Your task to perform on an android device: Go to Google Image 0: 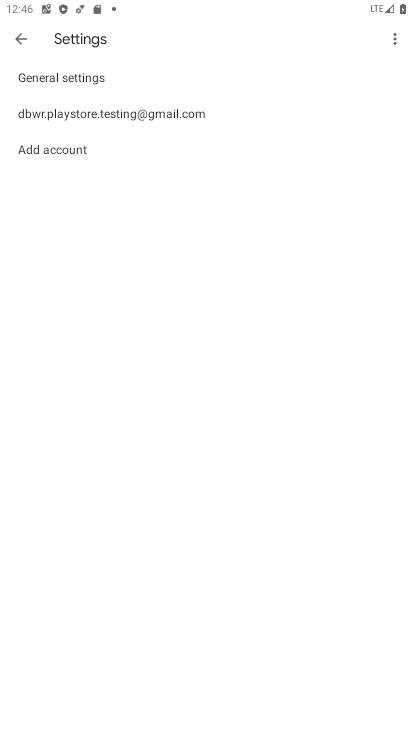
Step 0: press home button
Your task to perform on an android device: Go to Google Image 1: 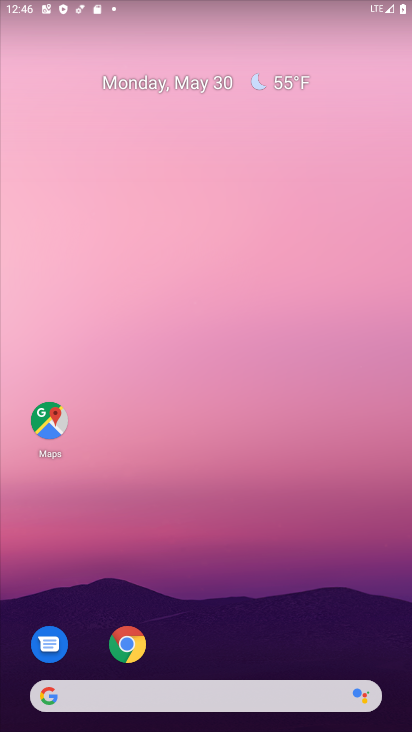
Step 1: click (162, 690)
Your task to perform on an android device: Go to Google Image 2: 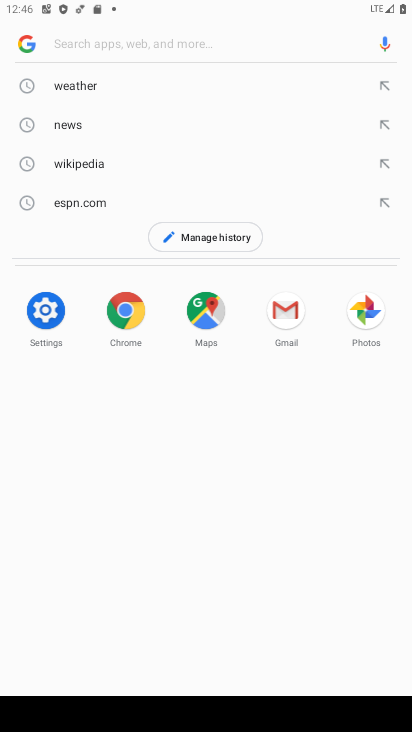
Step 2: type "google.com"
Your task to perform on an android device: Go to Google Image 3: 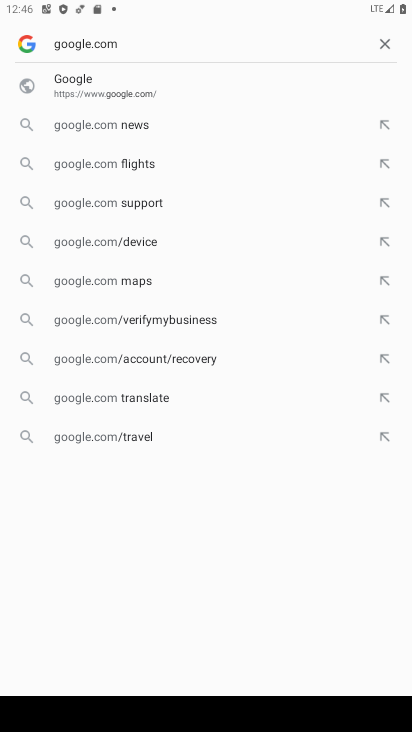
Step 3: click (101, 81)
Your task to perform on an android device: Go to Google Image 4: 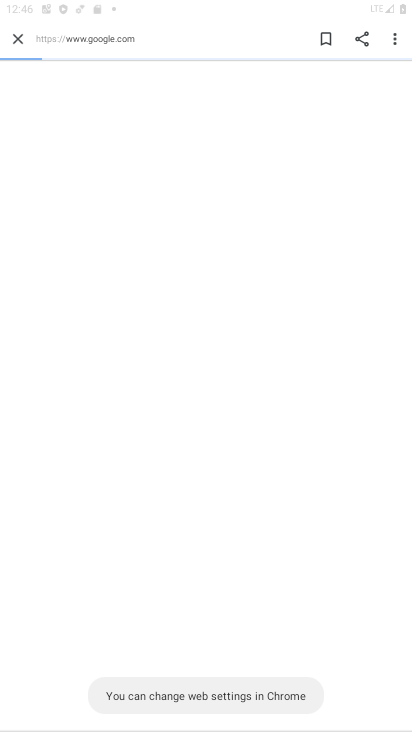
Step 4: task complete